Your task to perform on an android device: manage bookmarks in the chrome app Image 0: 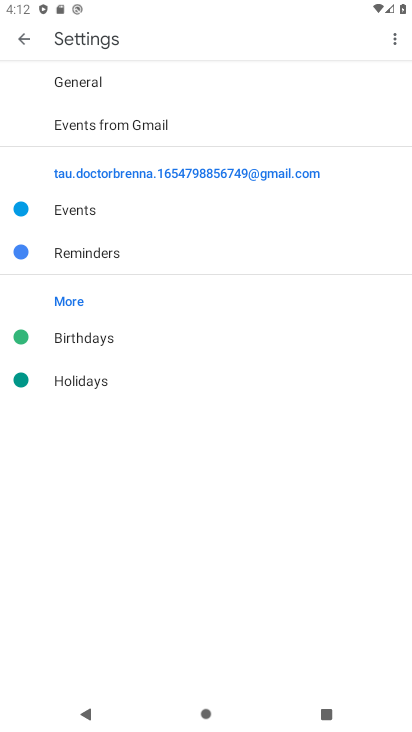
Step 0: press home button
Your task to perform on an android device: manage bookmarks in the chrome app Image 1: 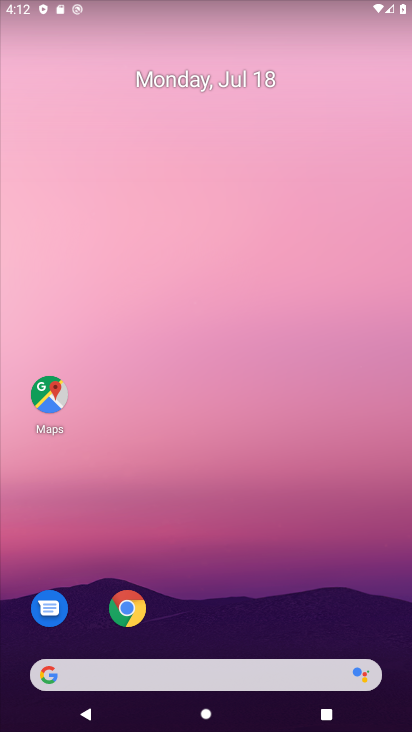
Step 1: drag from (323, 528) to (283, 66)
Your task to perform on an android device: manage bookmarks in the chrome app Image 2: 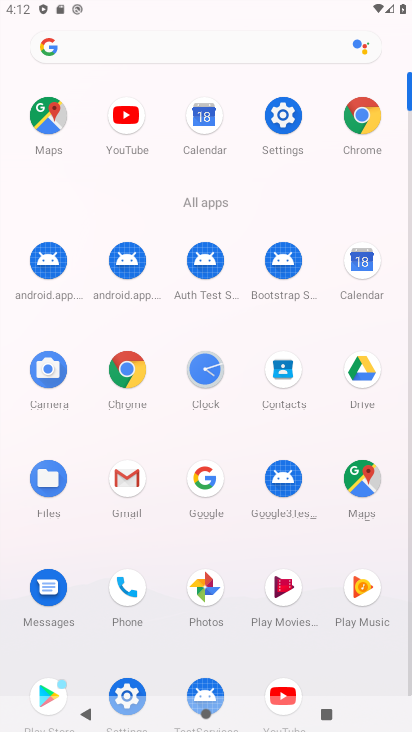
Step 2: click (128, 368)
Your task to perform on an android device: manage bookmarks in the chrome app Image 3: 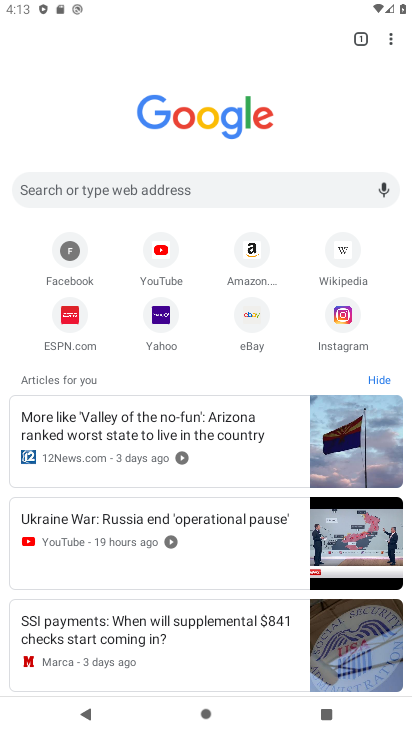
Step 3: drag from (389, 35) to (250, 147)
Your task to perform on an android device: manage bookmarks in the chrome app Image 4: 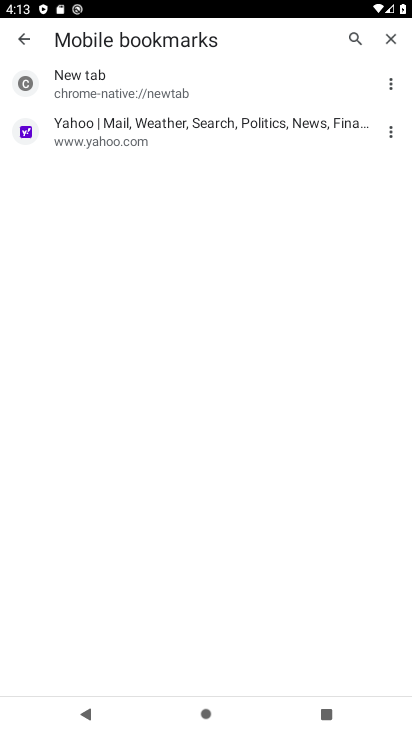
Step 4: click (389, 125)
Your task to perform on an android device: manage bookmarks in the chrome app Image 5: 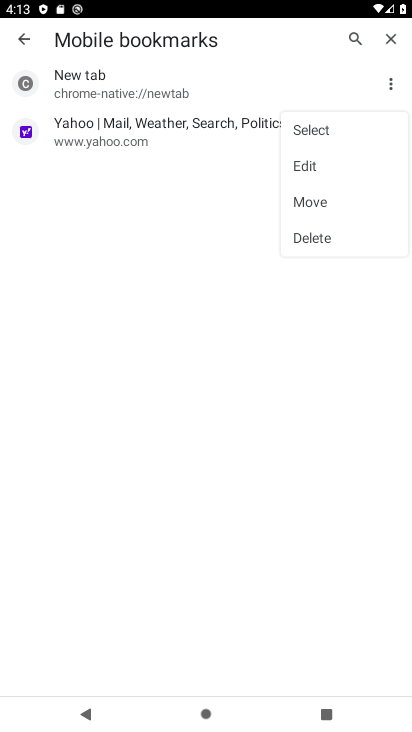
Step 5: click (316, 238)
Your task to perform on an android device: manage bookmarks in the chrome app Image 6: 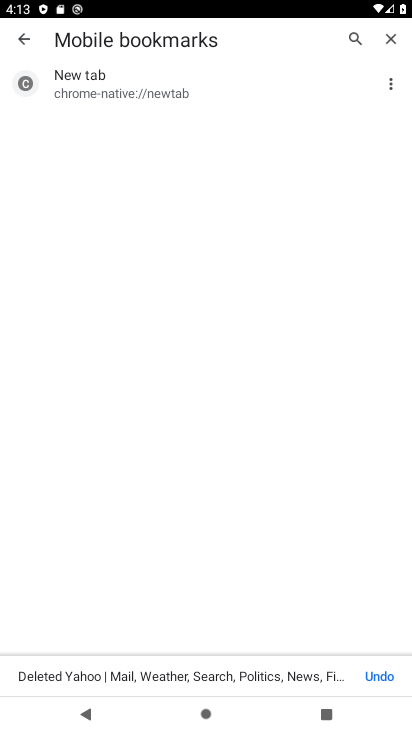
Step 6: task complete